Your task to perform on an android device: allow cookies in the chrome app Image 0: 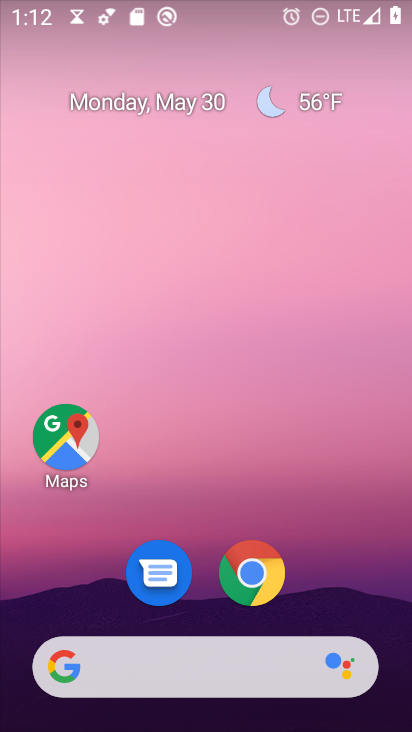
Step 0: drag from (267, 621) to (295, 3)
Your task to perform on an android device: allow cookies in the chrome app Image 1: 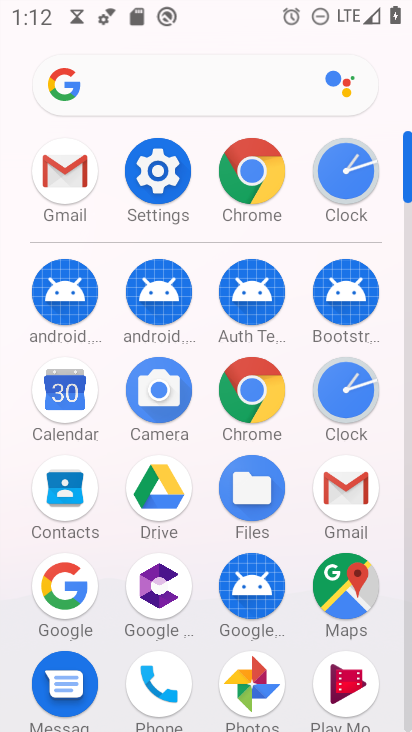
Step 1: click (266, 375)
Your task to perform on an android device: allow cookies in the chrome app Image 2: 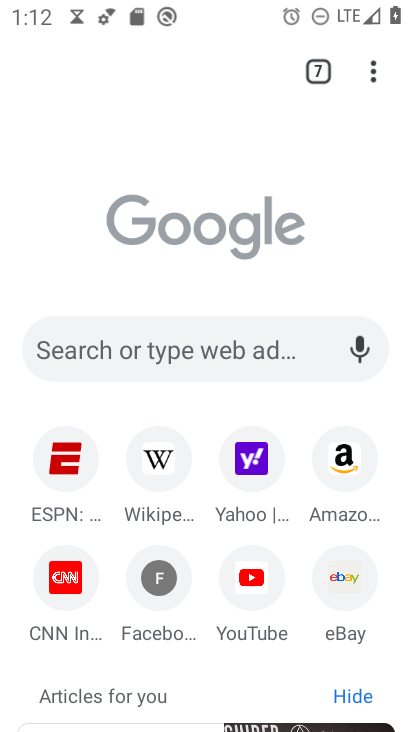
Step 2: drag from (368, 54) to (124, 622)
Your task to perform on an android device: allow cookies in the chrome app Image 3: 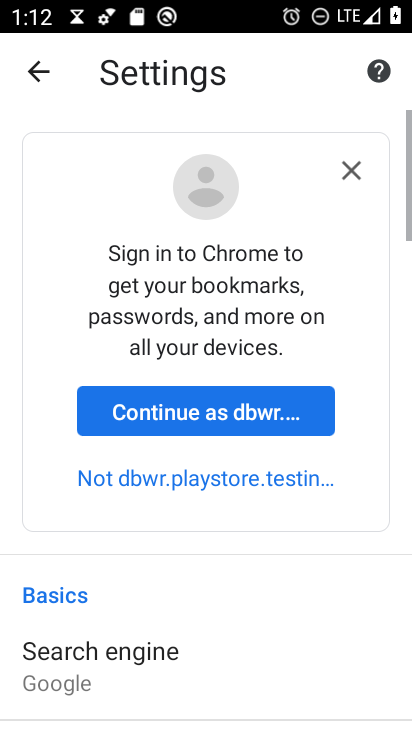
Step 3: drag from (124, 617) to (209, 0)
Your task to perform on an android device: allow cookies in the chrome app Image 4: 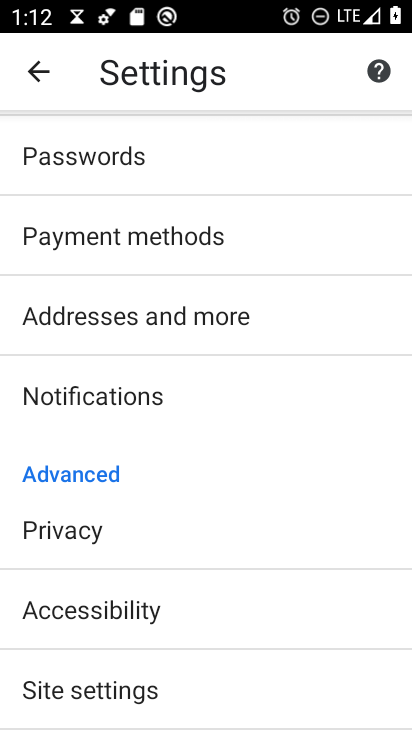
Step 4: drag from (184, 636) to (258, 208)
Your task to perform on an android device: allow cookies in the chrome app Image 5: 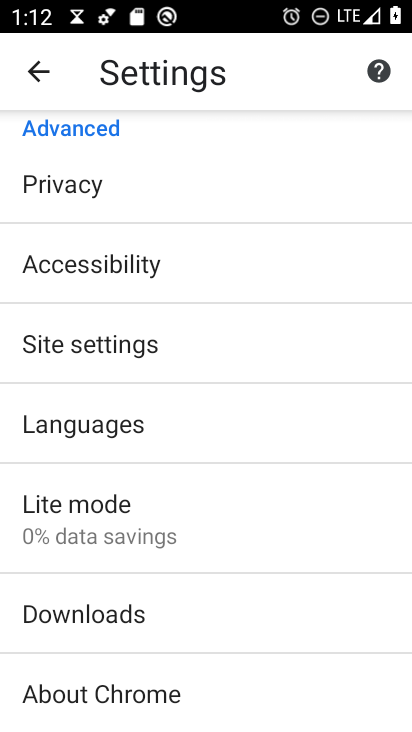
Step 5: click (176, 348)
Your task to perform on an android device: allow cookies in the chrome app Image 6: 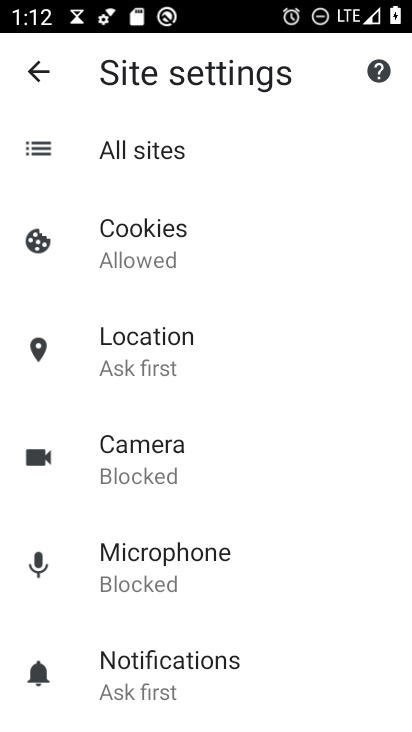
Step 6: press back button
Your task to perform on an android device: allow cookies in the chrome app Image 7: 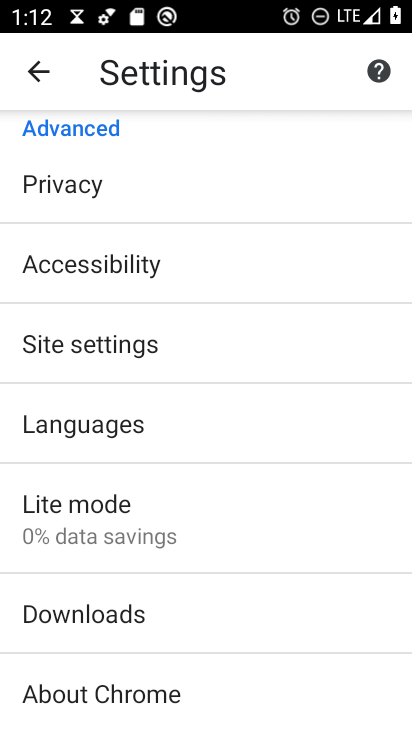
Step 7: click (151, 190)
Your task to perform on an android device: allow cookies in the chrome app Image 8: 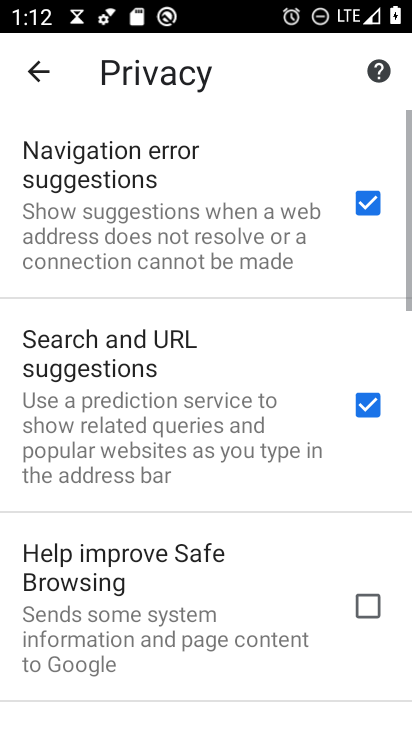
Step 8: drag from (176, 617) to (163, 26)
Your task to perform on an android device: allow cookies in the chrome app Image 9: 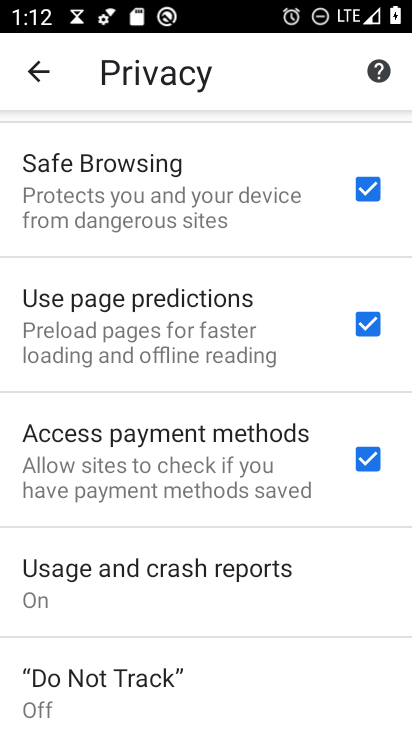
Step 9: drag from (253, 614) to (280, 202)
Your task to perform on an android device: allow cookies in the chrome app Image 10: 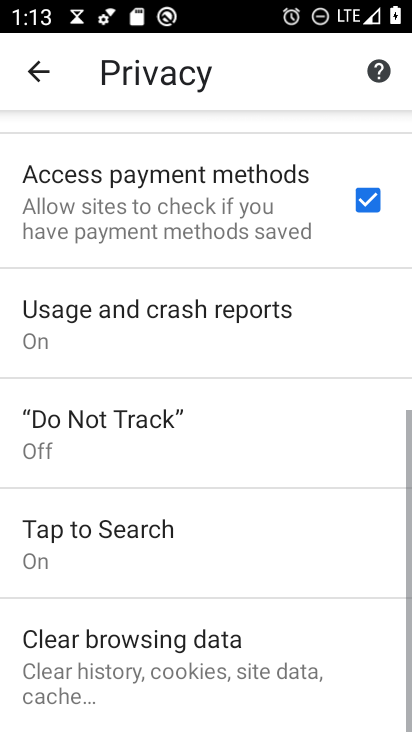
Step 10: click (237, 690)
Your task to perform on an android device: allow cookies in the chrome app Image 11: 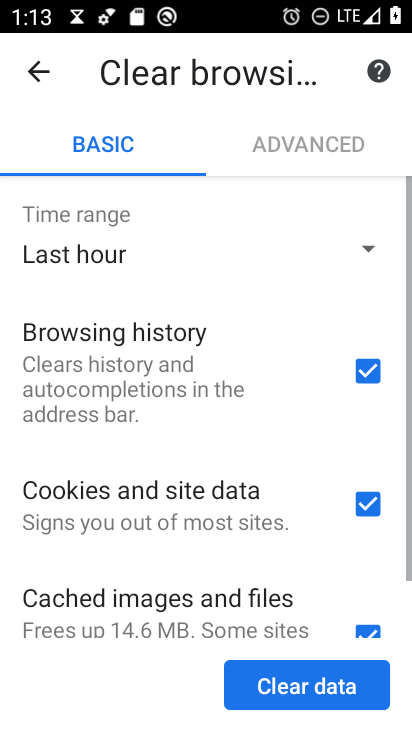
Step 11: click (287, 678)
Your task to perform on an android device: allow cookies in the chrome app Image 12: 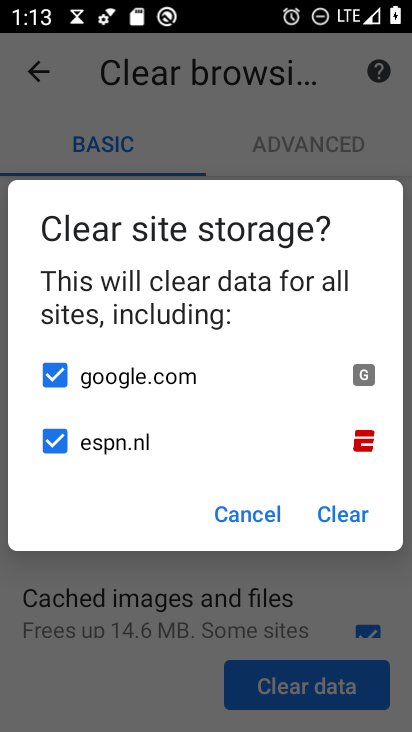
Step 12: click (345, 513)
Your task to perform on an android device: allow cookies in the chrome app Image 13: 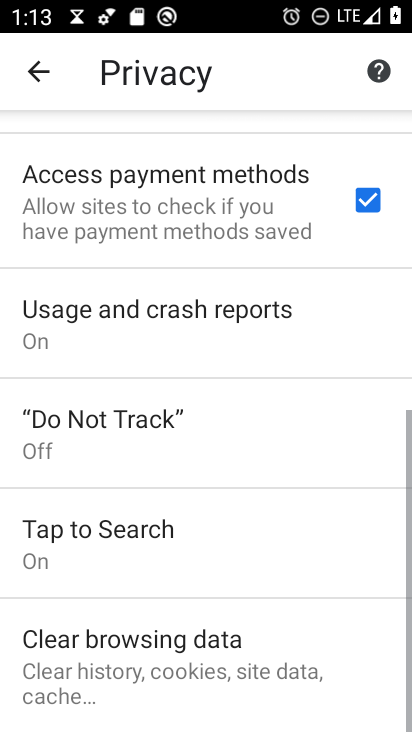
Step 13: task complete